Your task to perform on an android device: Open Youtube and go to "Your channel" Image 0: 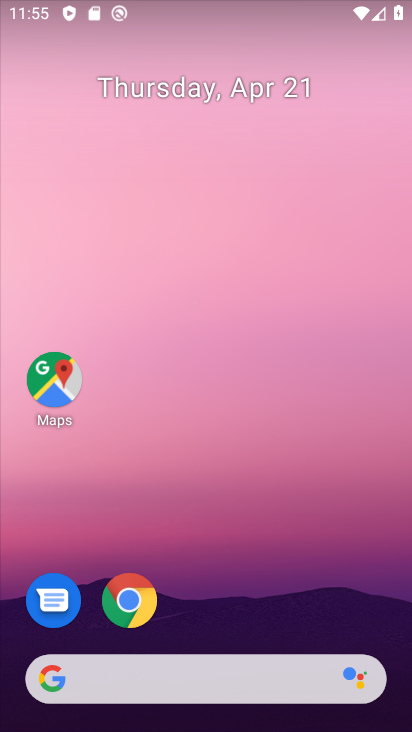
Step 0: drag from (374, 323) to (363, 177)
Your task to perform on an android device: Open Youtube and go to "Your channel" Image 1: 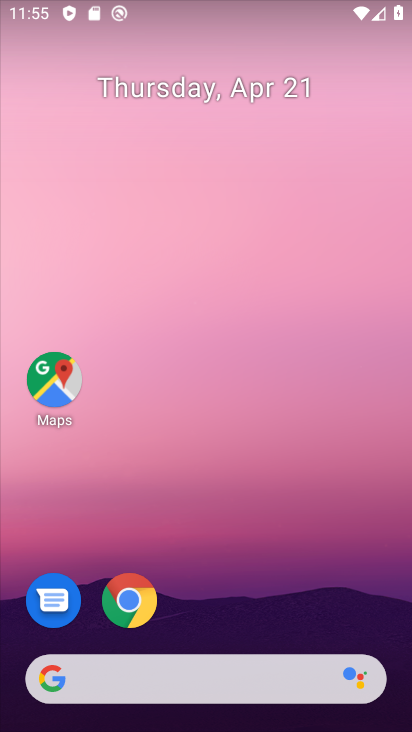
Step 1: drag from (391, 617) to (353, 95)
Your task to perform on an android device: Open Youtube and go to "Your channel" Image 2: 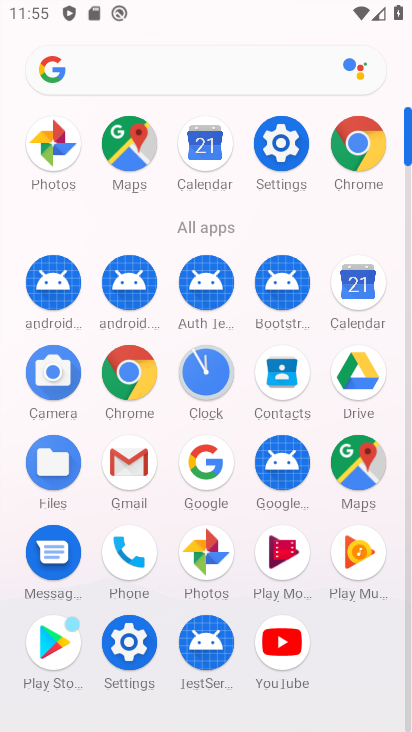
Step 2: click (295, 633)
Your task to perform on an android device: Open Youtube and go to "Your channel" Image 3: 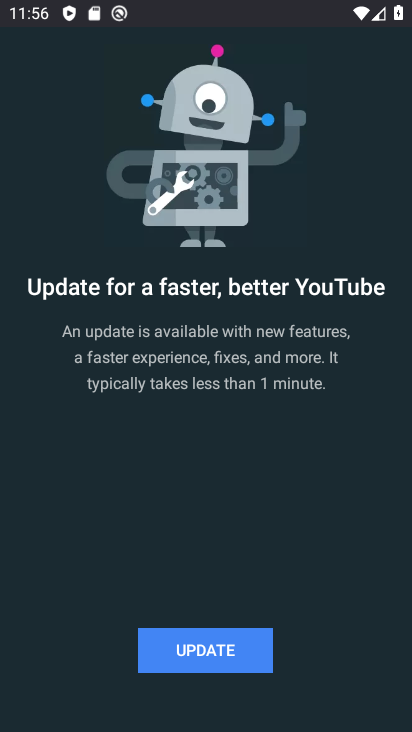
Step 3: press back button
Your task to perform on an android device: Open Youtube and go to "Your channel" Image 4: 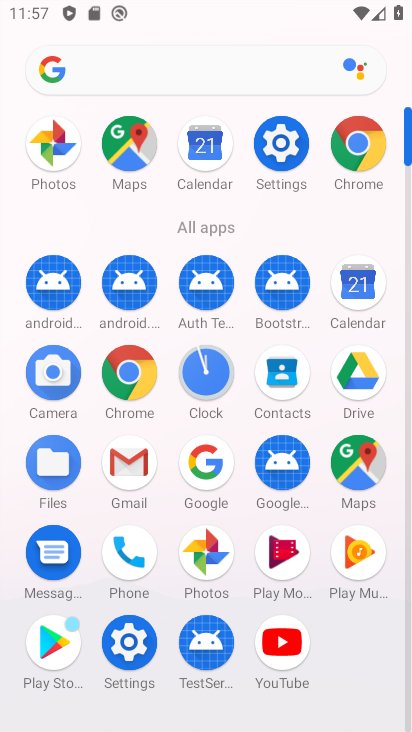
Step 4: click (284, 647)
Your task to perform on an android device: Open Youtube and go to "Your channel" Image 5: 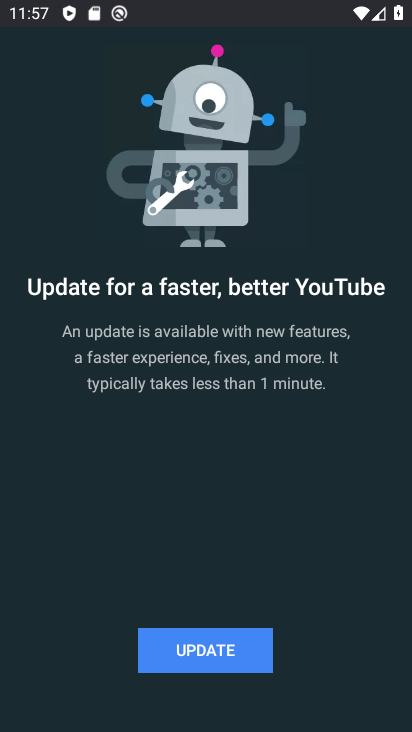
Step 5: click (210, 651)
Your task to perform on an android device: Open Youtube and go to "Your channel" Image 6: 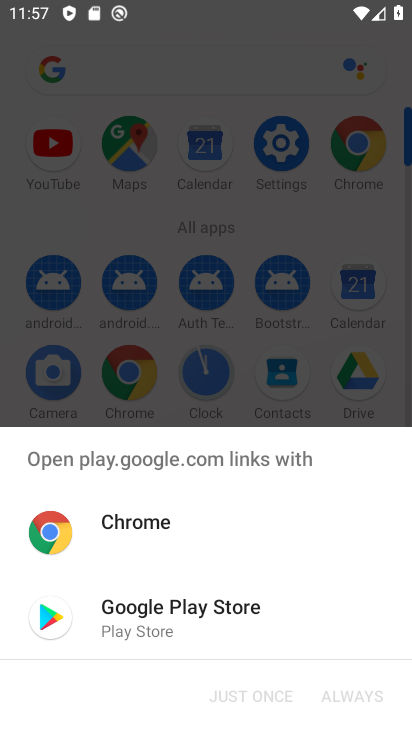
Step 6: click (131, 607)
Your task to perform on an android device: Open Youtube and go to "Your channel" Image 7: 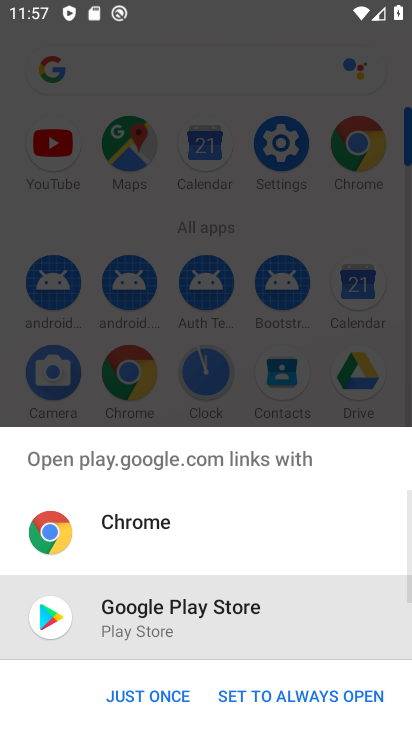
Step 7: click (156, 681)
Your task to perform on an android device: Open Youtube and go to "Your channel" Image 8: 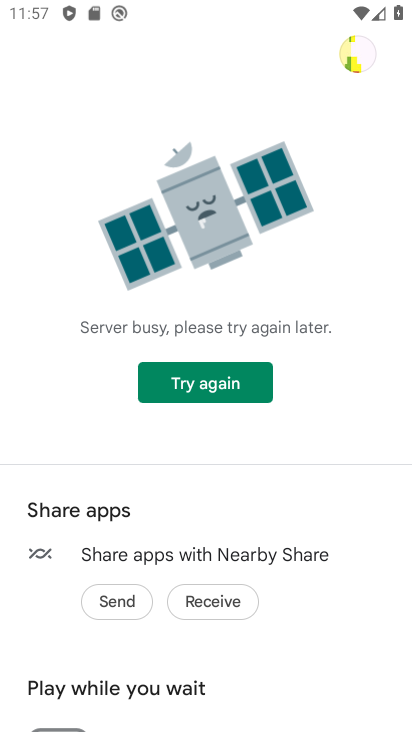
Step 8: task complete